Your task to perform on an android device: turn on notifications settings in the gmail app Image 0: 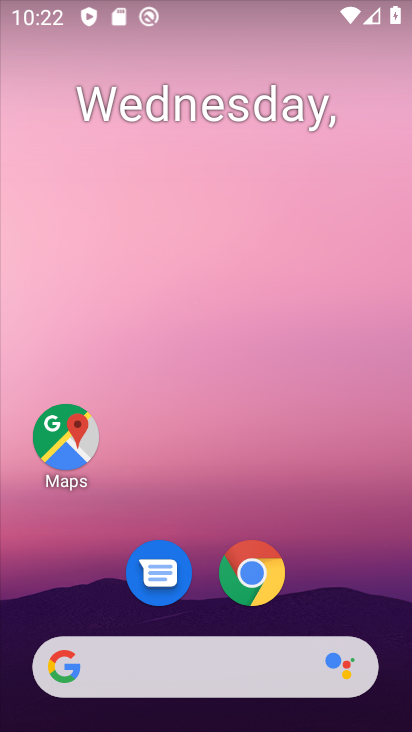
Step 0: drag from (363, 378) to (349, 191)
Your task to perform on an android device: turn on notifications settings in the gmail app Image 1: 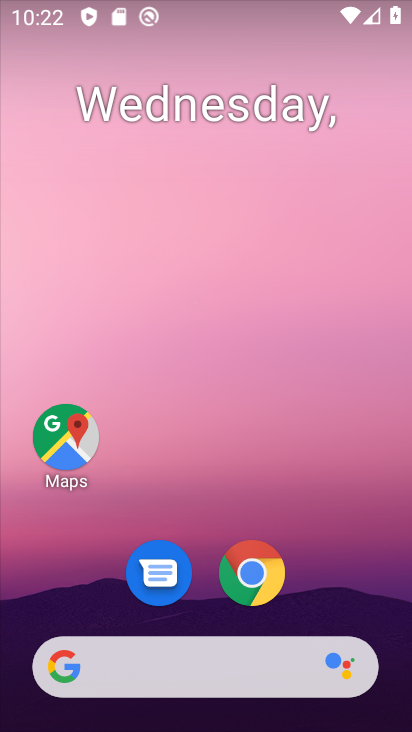
Step 1: drag from (398, 621) to (356, 137)
Your task to perform on an android device: turn on notifications settings in the gmail app Image 2: 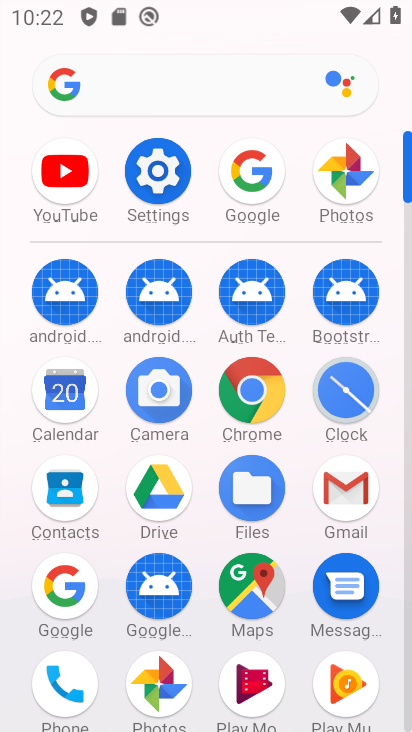
Step 2: click (335, 485)
Your task to perform on an android device: turn on notifications settings in the gmail app Image 3: 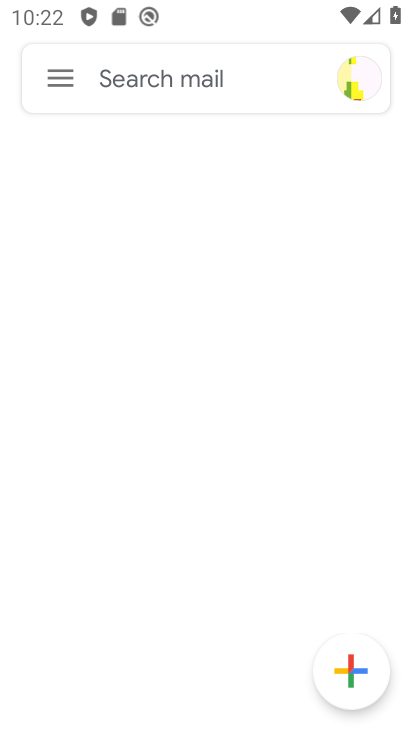
Step 3: click (60, 76)
Your task to perform on an android device: turn on notifications settings in the gmail app Image 4: 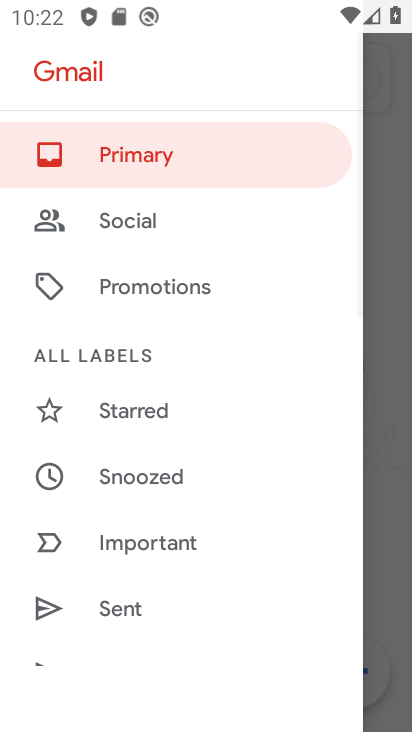
Step 4: drag from (242, 411) to (248, 250)
Your task to perform on an android device: turn on notifications settings in the gmail app Image 5: 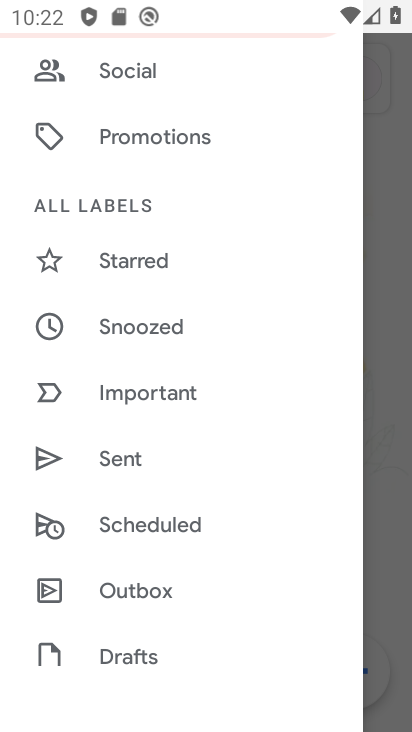
Step 5: drag from (268, 459) to (265, 274)
Your task to perform on an android device: turn on notifications settings in the gmail app Image 6: 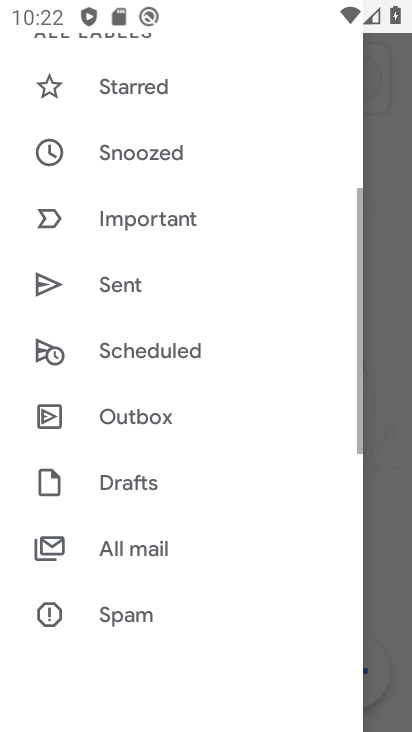
Step 6: drag from (274, 425) to (269, 240)
Your task to perform on an android device: turn on notifications settings in the gmail app Image 7: 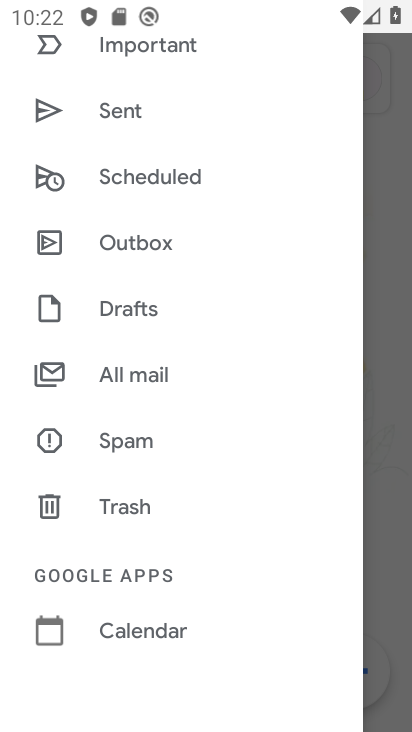
Step 7: drag from (273, 405) to (273, 279)
Your task to perform on an android device: turn on notifications settings in the gmail app Image 8: 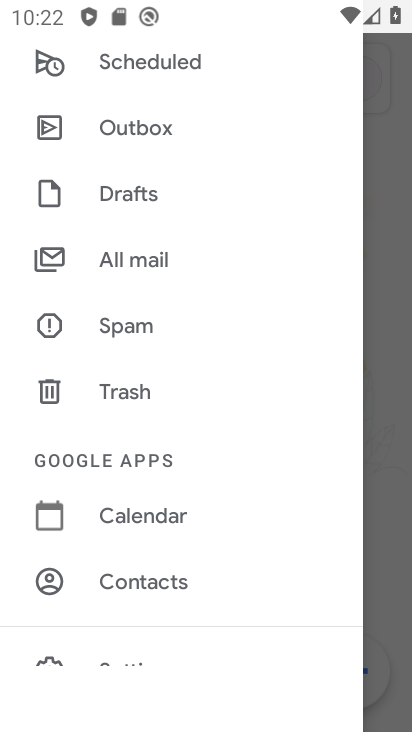
Step 8: drag from (275, 362) to (276, 254)
Your task to perform on an android device: turn on notifications settings in the gmail app Image 9: 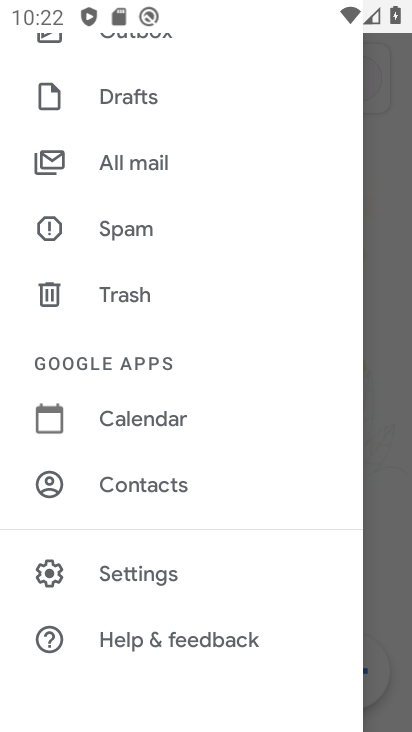
Step 9: click (121, 574)
Your task to perform on an android device: turn on notifications settings in the gmail app Image 10: 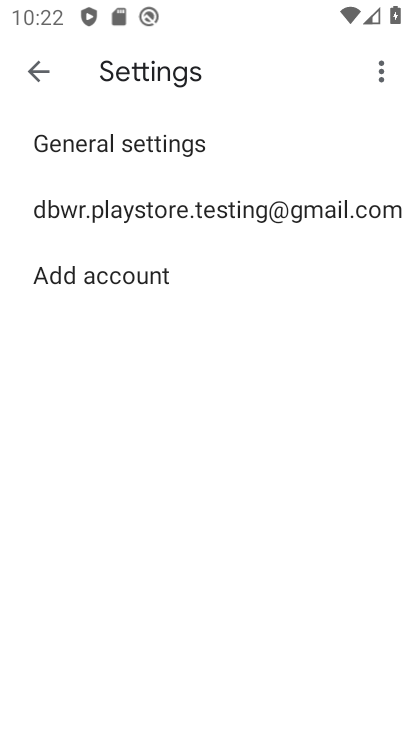
Step 10: click (107, 127)
Your task to perform on an android device: turn on notifications settings in the gmail app Image 11: 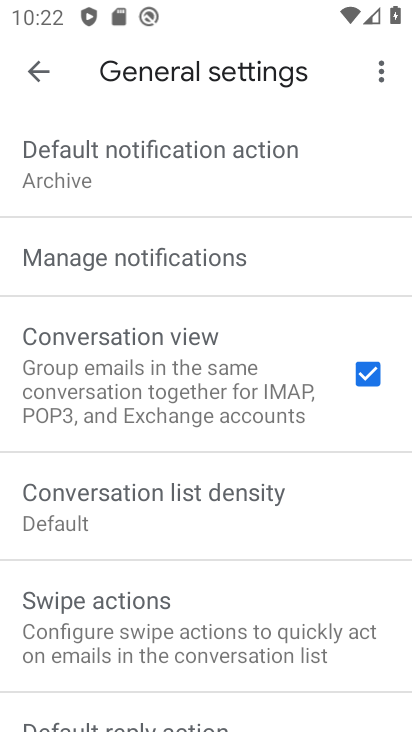
Step 11: click (113, 266)
Your task to perform on an android device: turn on notifications settings in the gmail app Image 12: 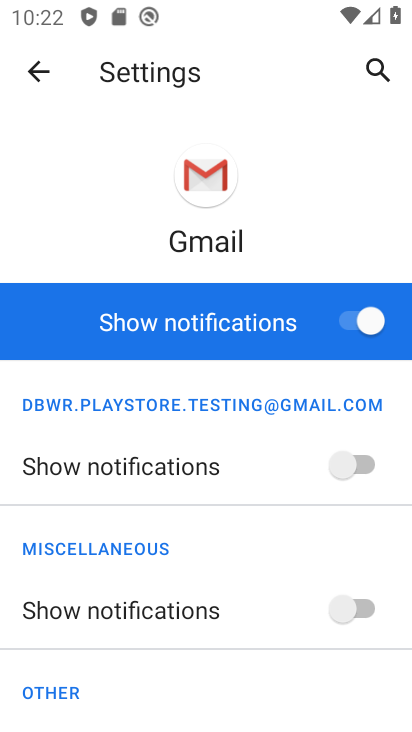
Step 12: task complete